Your task to perform on an android device: Go to Reddit.com Image 0: 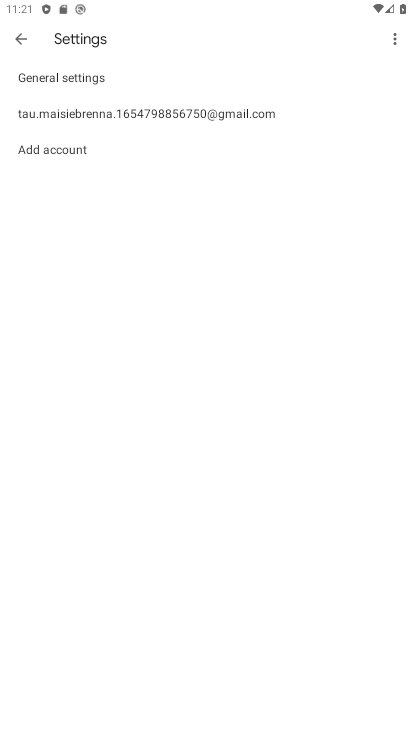
Step 0: drag from (218, 683) to (155, 225)
Your task to perform on an android device: Go to Reddit.com Image 1: 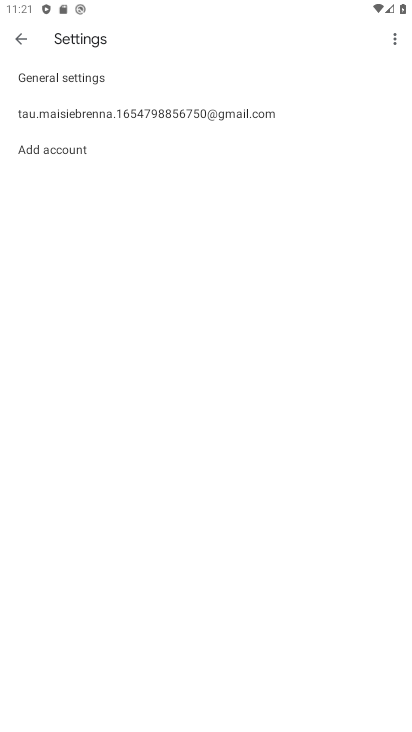
Step 1: press home button
Your task to perform on an android device: Go to Reddit.com Image 2: 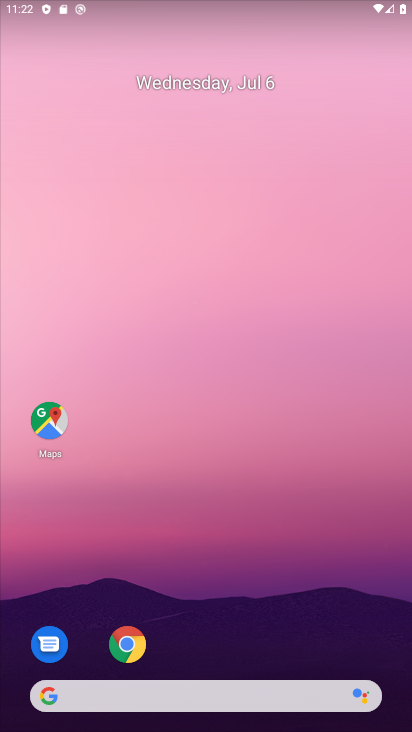
Step 2: click (129, 651)
Your task to perform on an android device: Go to Reddit.com Image 3: 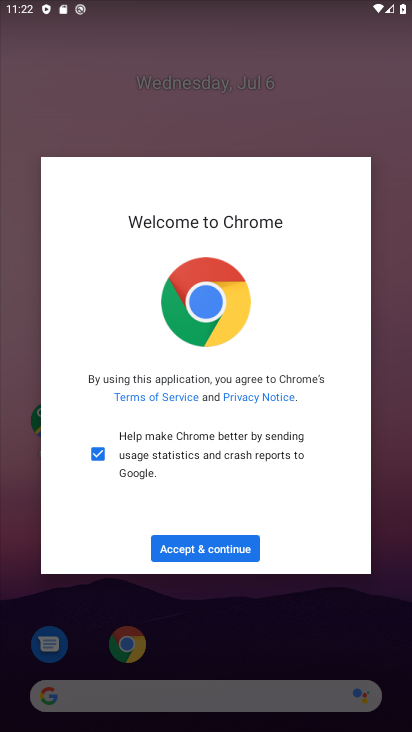
Step 3: click (202, 552)
Your task to perform on an android device: Go to Reddit.com Image 4: 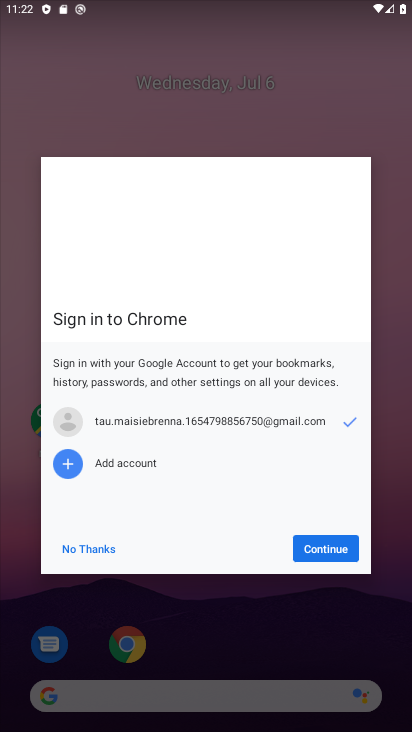
Step 4: click (336, 556)
Your task to perform on an android device: Go to Reddit.com Image 5: 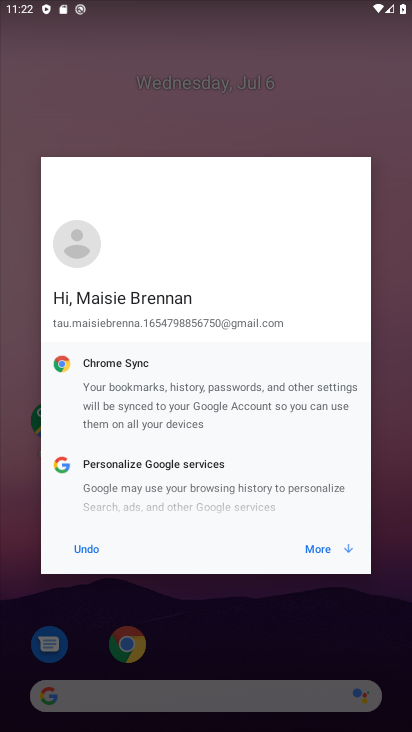
Step 5: click (329, 554)
Your task to perform on an android device: Go to Reddit.com Image 6: 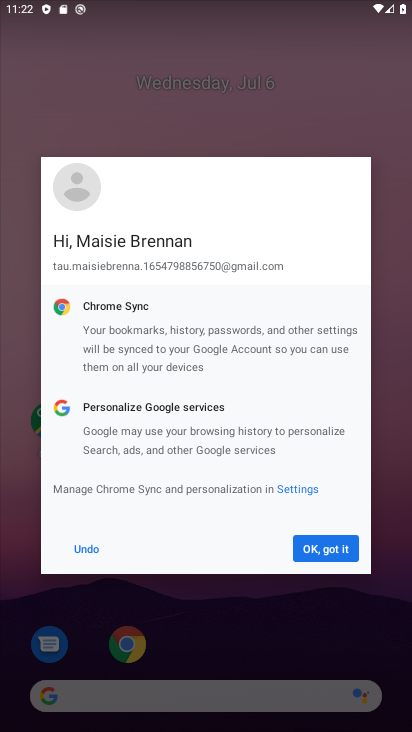
Step 6: click (320, 553)
Your task to perform on an android device: Go to Reddit.com Image 7: 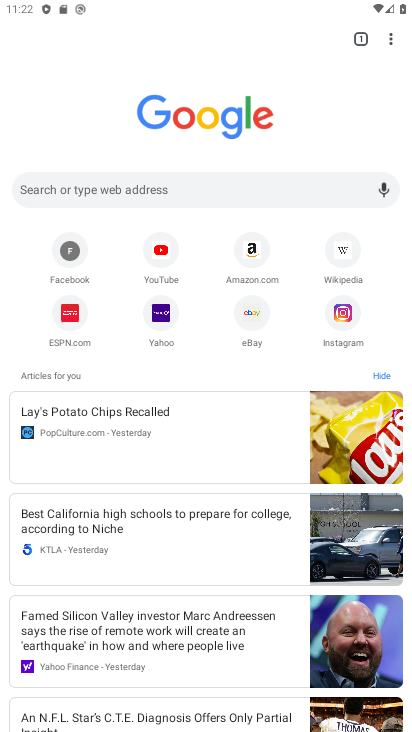
Step 7: click (191, 193)
Your task to perform on an android device: Go to Reddit.com Image 8: 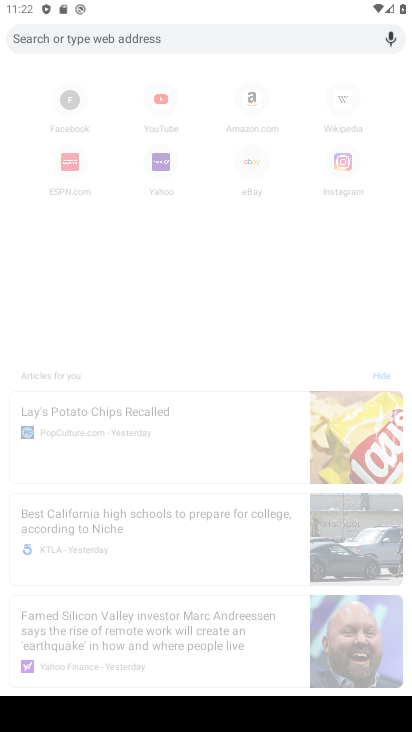
Step 8: type "reddit.com"
Your task to perform on an android device: Go to Reddit.com Image 9: 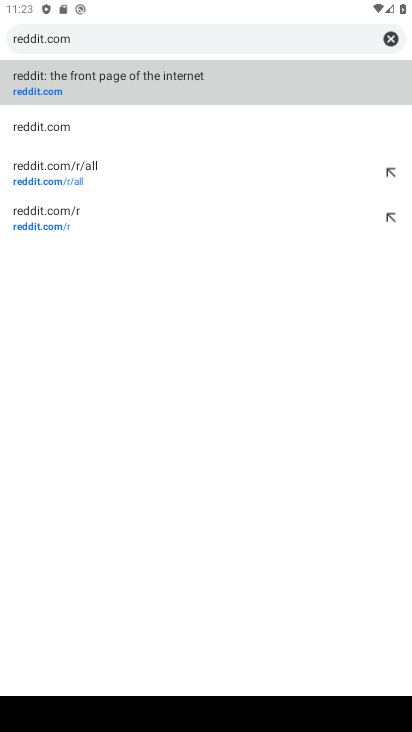
Step 9: click (132, 79)
Your task to perform on an android device: Go to Reddit.com Image 10: 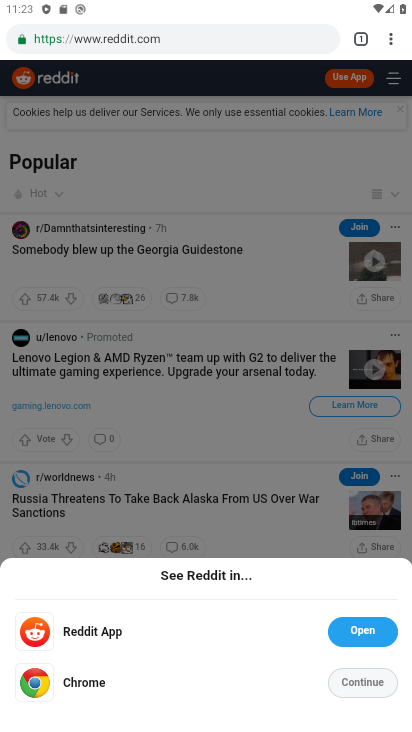
Step 10: click (367, 697)
Your task to perform on an android device: Go to Reddit.com Image 11: 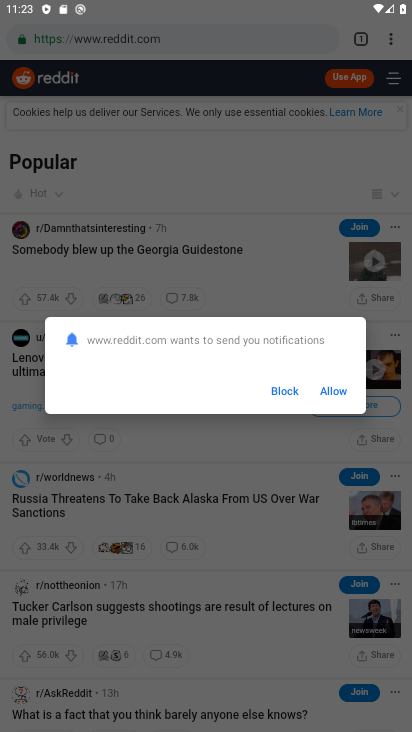
Step 11: task complete